Your task to perform on an android device: delete a single message in the gmail app Image 0: 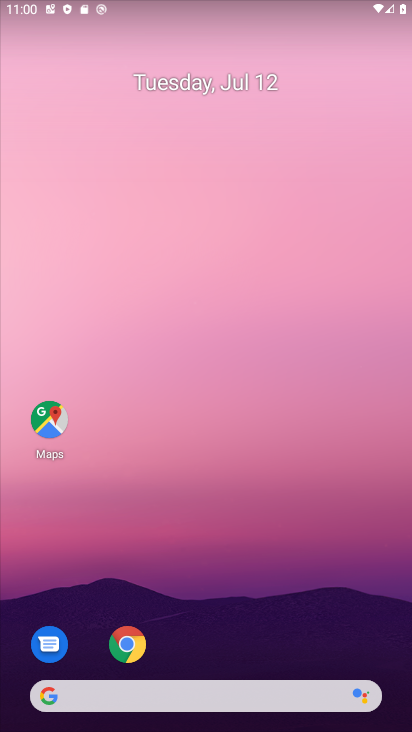
Step 0: drag from (206, 657) to (217, 3)
Your task to perform on an android device: delete a single message in the gmail app Image 1: 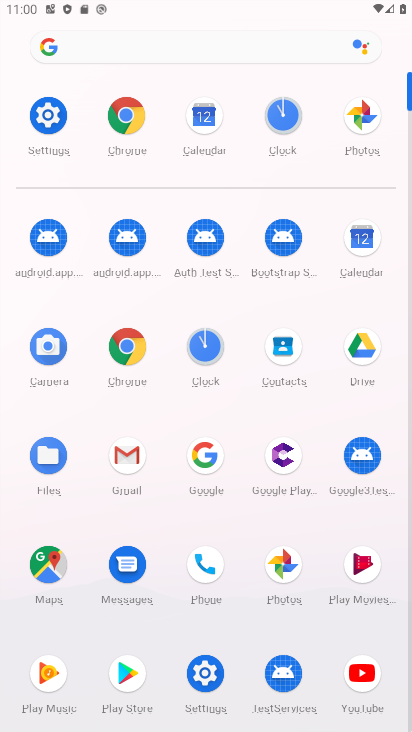
Step 1: click (127, 451)
Your task to perform on an android device: delete a single message in the gmail app Image 2: 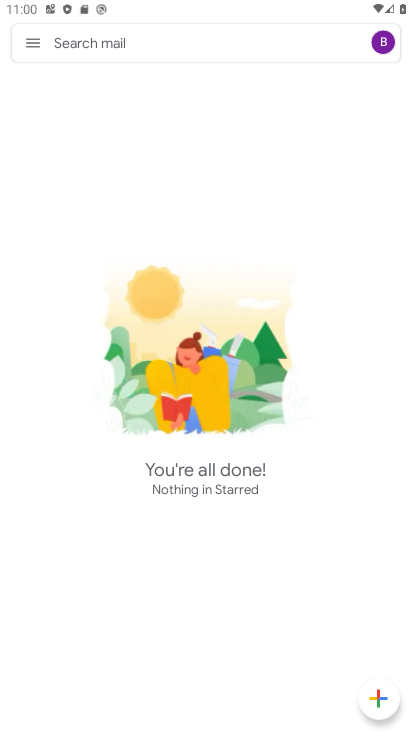
Step 2: task complete